Your task to perform on an android device: Open the map Image 0: 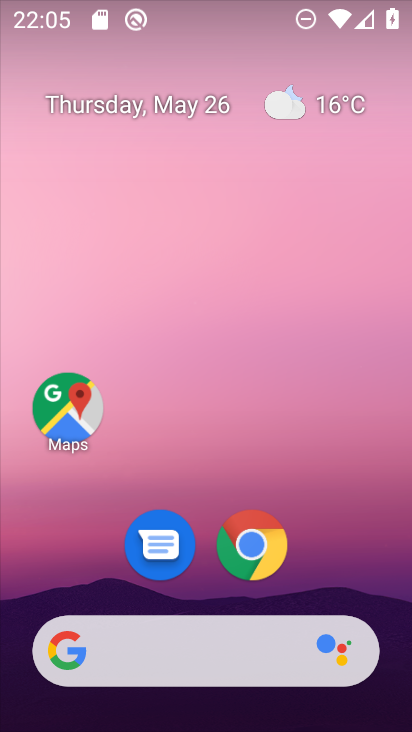
Step 0: click (50, 416)
Your task to perform on an android device: Open the map Image 1: 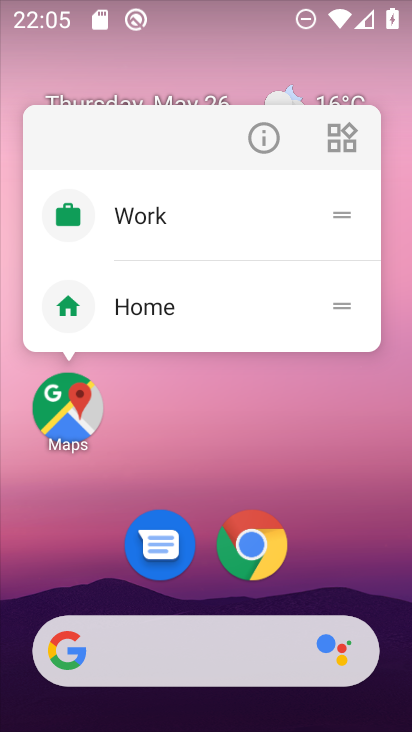
Step 1: click (72, 404)
Your task to perform on an android device: Open the map Image 2: 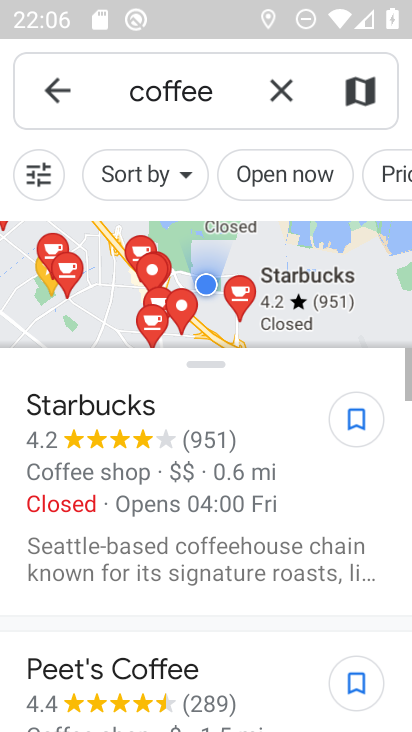
Step 2: task complete